Your task to perform on an android device: open app "LiveIn - Share Your Moment" (install if not already installed) Image 0: 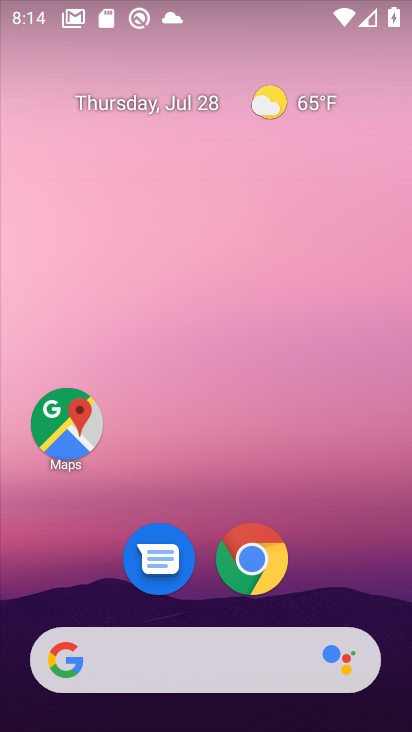
Step 0: drag from (208, 537) to (176, 6)
Your task to perform on an android device: open app "LiveIn - Share Your Moment" (install if not already installed) Image 1: 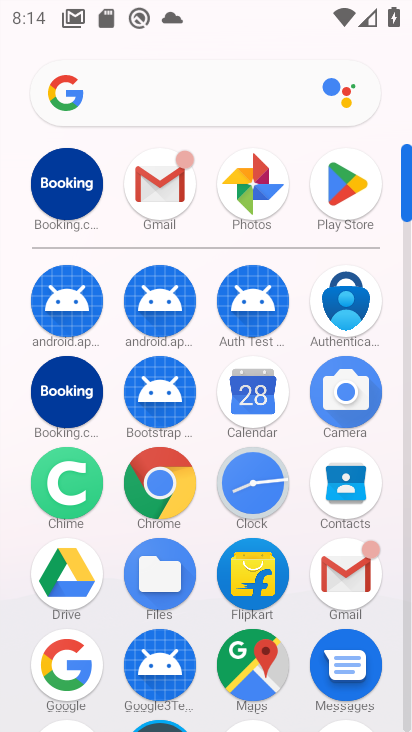
Step 1: click (347, 191)
Your task to perform on an android device: open app "LiveIn - Share Your Moment" (install if not already installed) Image 2: 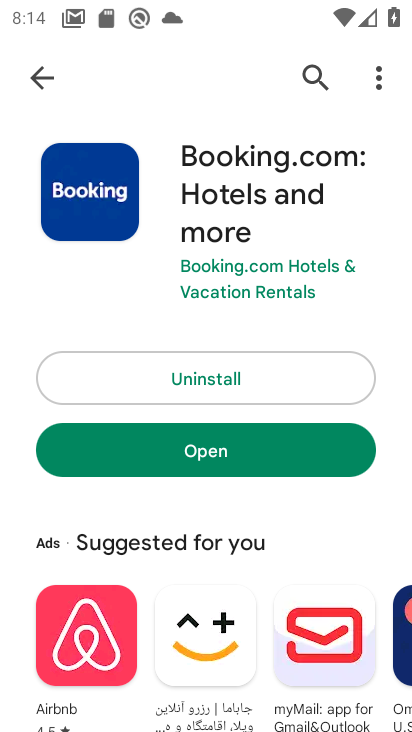
Step 2: click (50, 71)
Your task to perform on an android device: open app "LiveIn - Share Your Moment" (install if not already installed) Image 3: 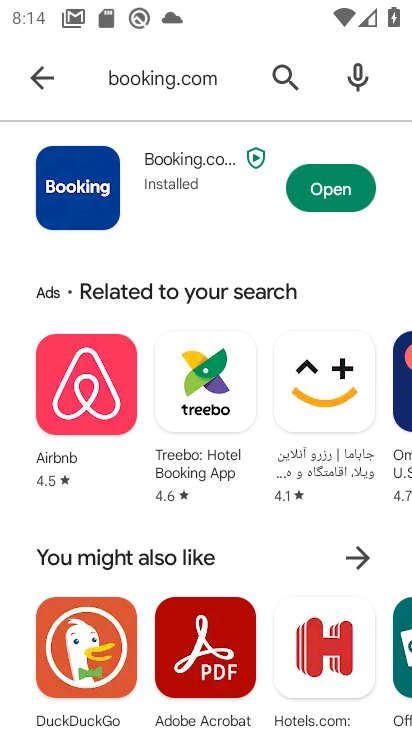
Step 3: click (131, 82)
Your task to perform on an android device: open app "LiveIn - Share Your Moment" (install if not already installed) Image 4: 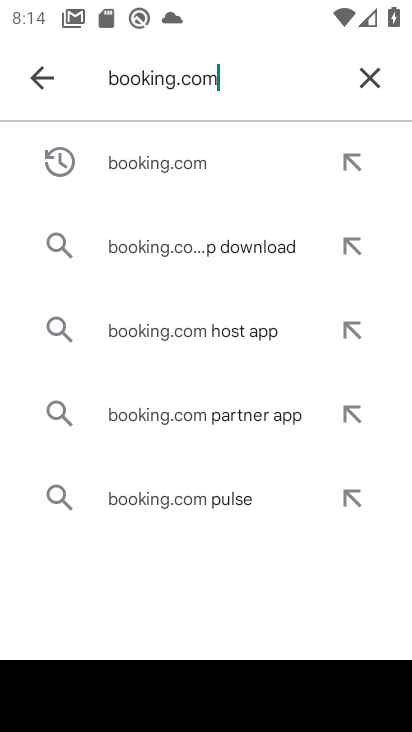
Step 4: click (363, 76)
Your task to perform on an android device: open app "LiveIn - Share Your Moment" (install if not already installed) Image 5: 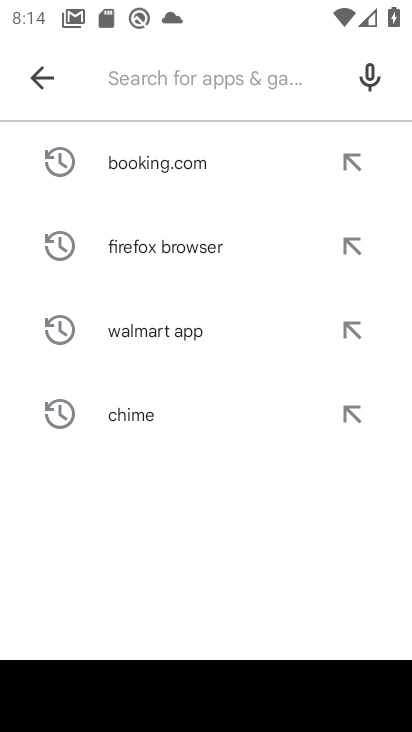
Step 5: type "LiveIN"
Your task to perform on an android device: open app "LiveIn - Share Your Moment" (install if not already installed) Image 6: 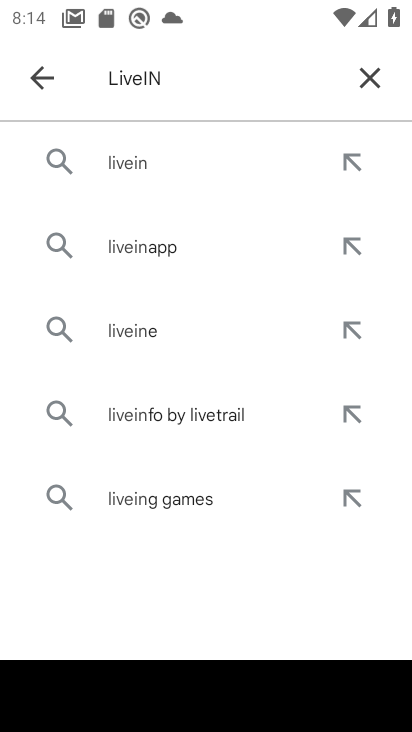
Step 6: click (152, 171)
Your task to perform on an android device: open app "LiveIn - Share Your Moment" (install if not already installed) Image 7: 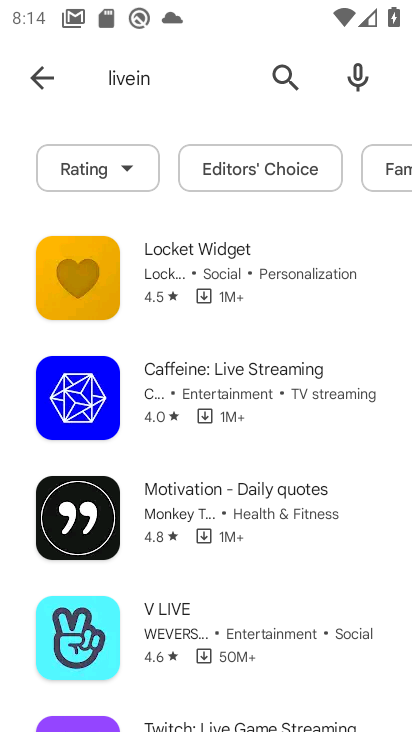
Step 7: task complete